Your task to perform on an android device: Go to Google Image 0: 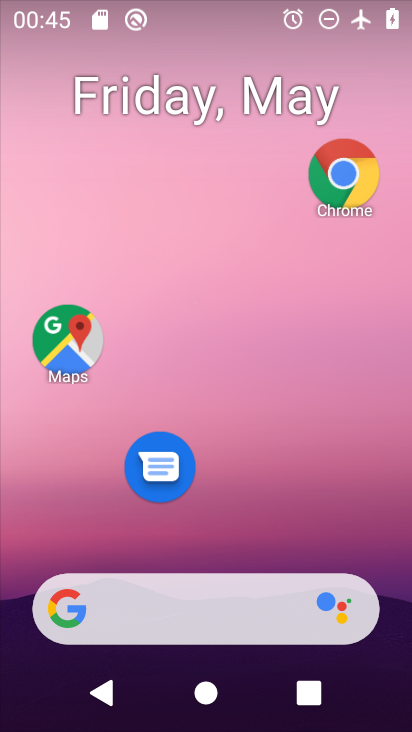
Step 0: drag from (296, 516) to (264, 259)
Your task to perform on an android device: Go to Google Image 1: 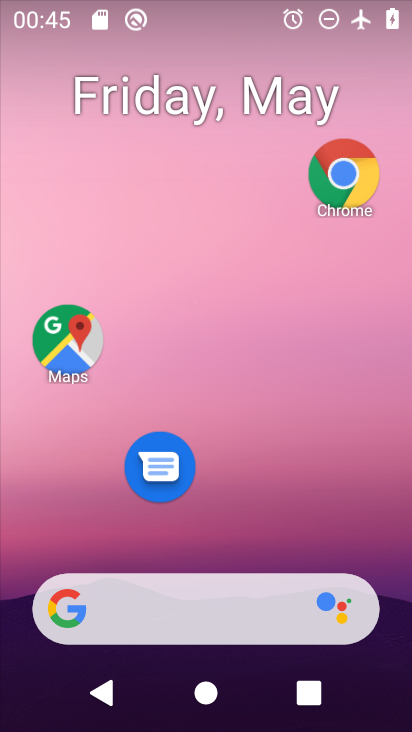
Step 1: drag from (216, 565) to (223, 259)
Your task to perform on an android device: Go to Google Image 2: 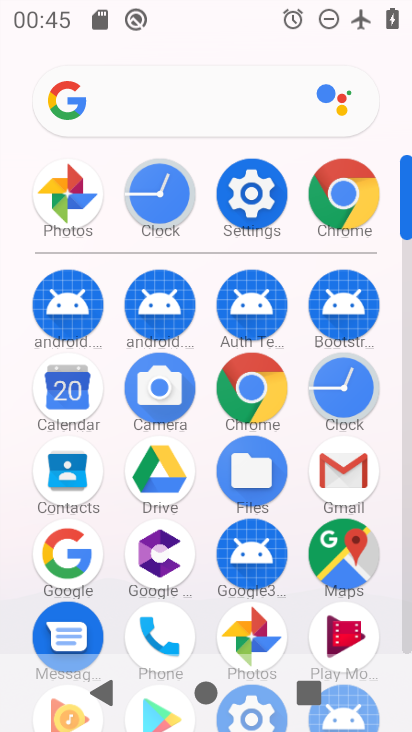
Step 2: click (56, 555)
Your task to perform on an android device: Go to Google Image 3: 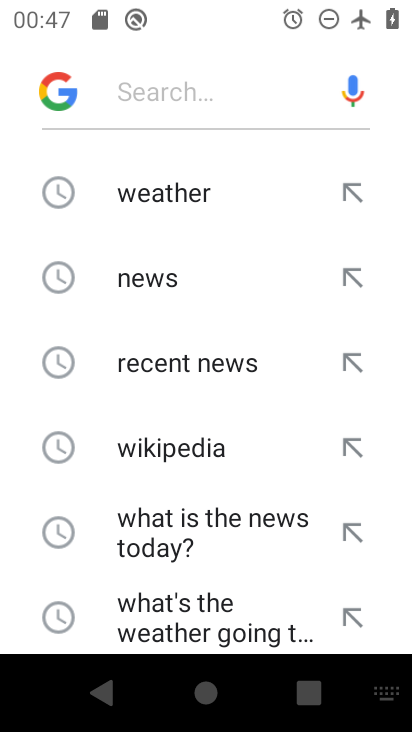
Step 3: task complete